Your task to perform on an android device: Open internet settings Image 0: 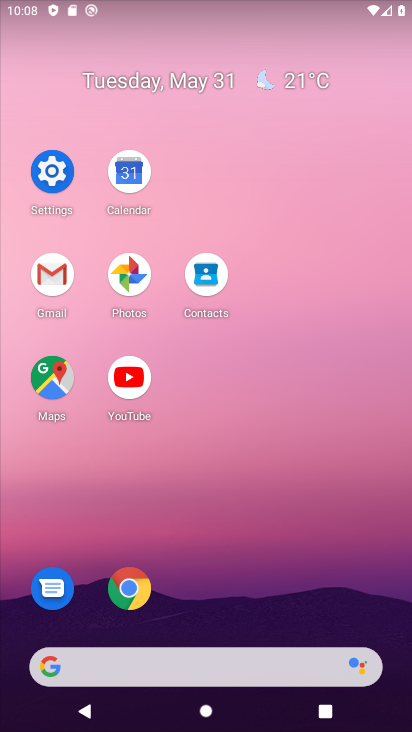
Step 0: click (69, 175)
Your task to perform on an android device: Open internet settings Image 1: 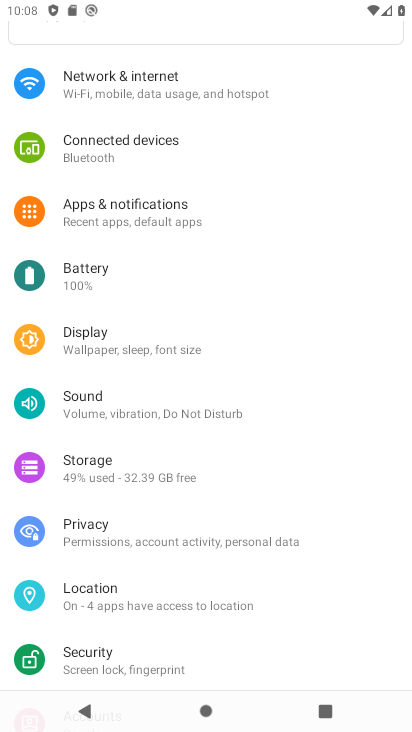
Step 1: click (219, 103)
Your task to perform on an android device: Open internet settings Image 2: 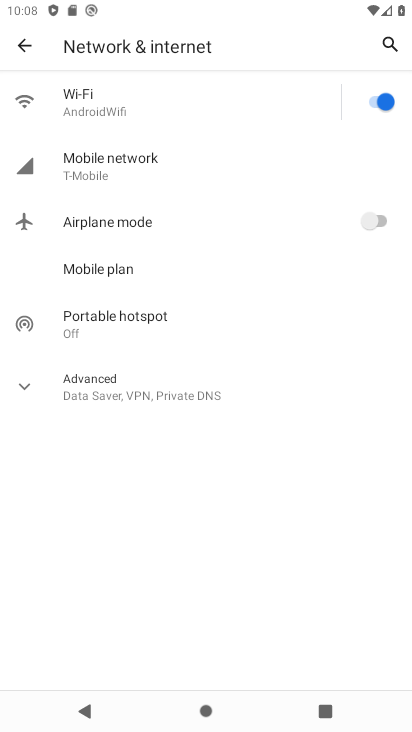
Step 2: task complete